Your task to perform on an android device: What is the recent news? Image 0: 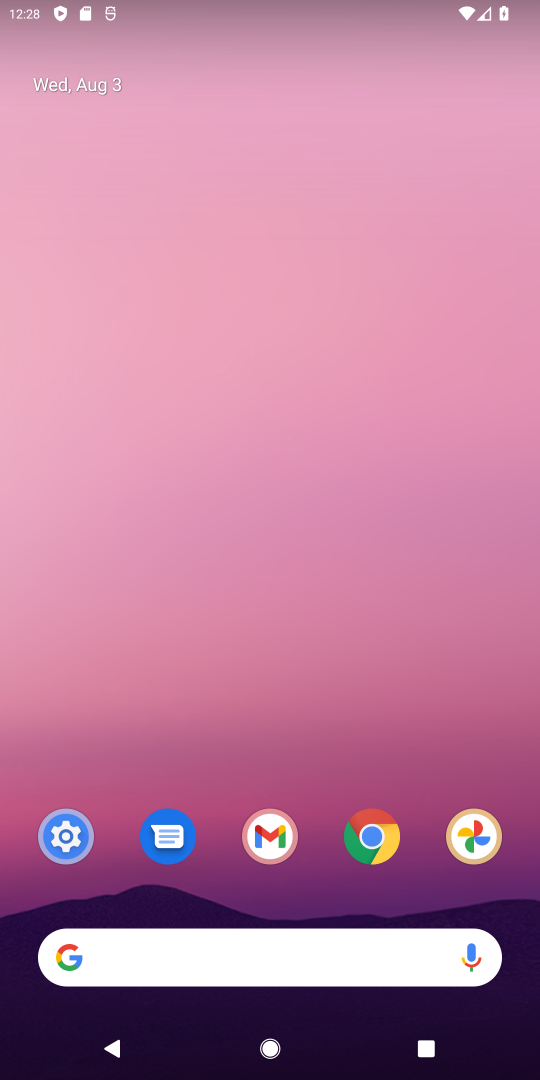
Step 0: drag from (214, 882) to (186, 274)
Your task to perform on an android device: What is the recent news? Image 1: 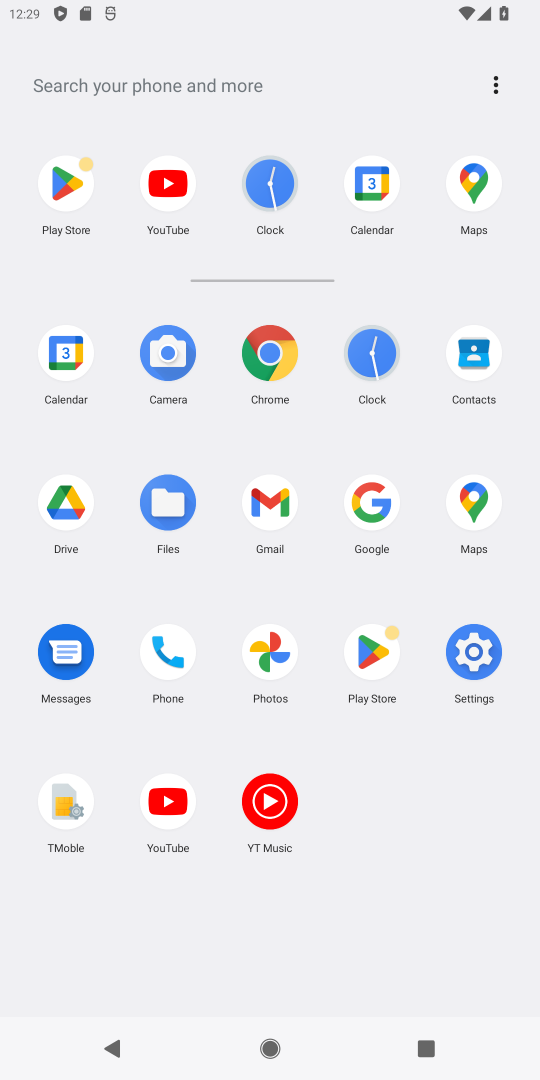
Step 1: drag from (426, 781) to (395, 310)
Your task to perform on an android device: What is the recent news? Image 2: 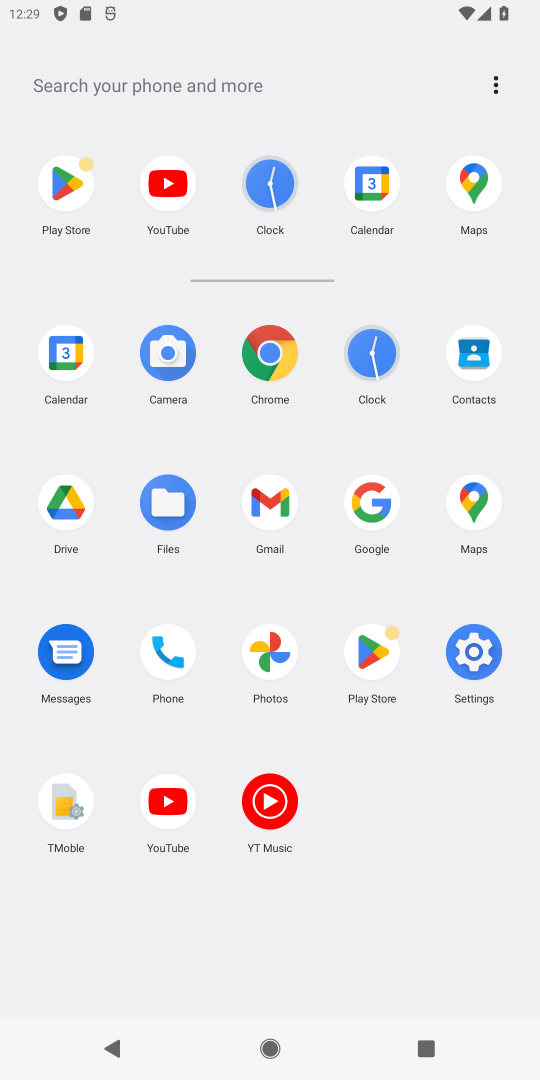
Step 2: click (171, 93)
Your task to perform on an android device: What is the recent news? Image 3: 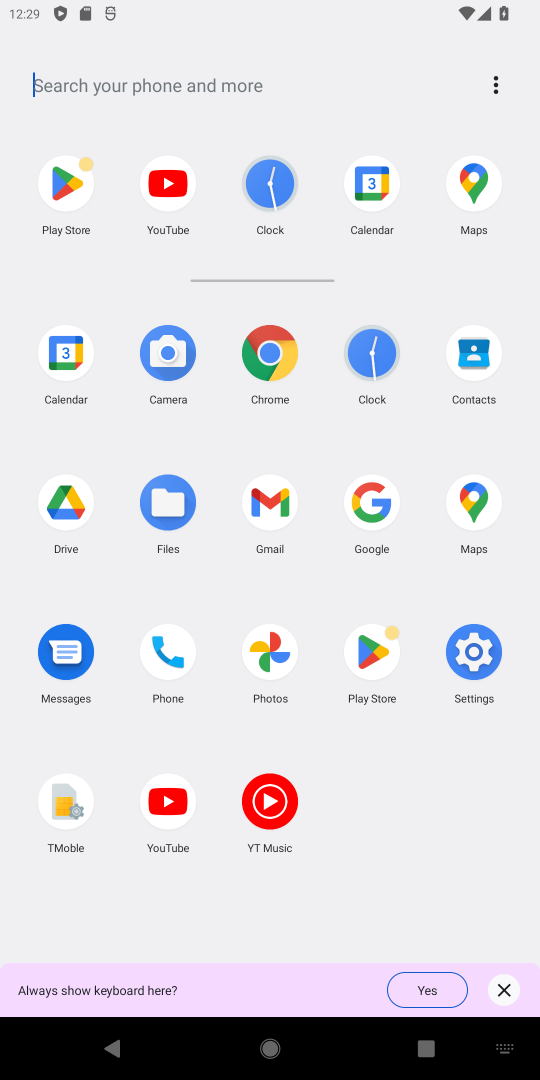
Step 3: type "recent news?"
Your task to perform on an android device: What is the recent news? Image 4: 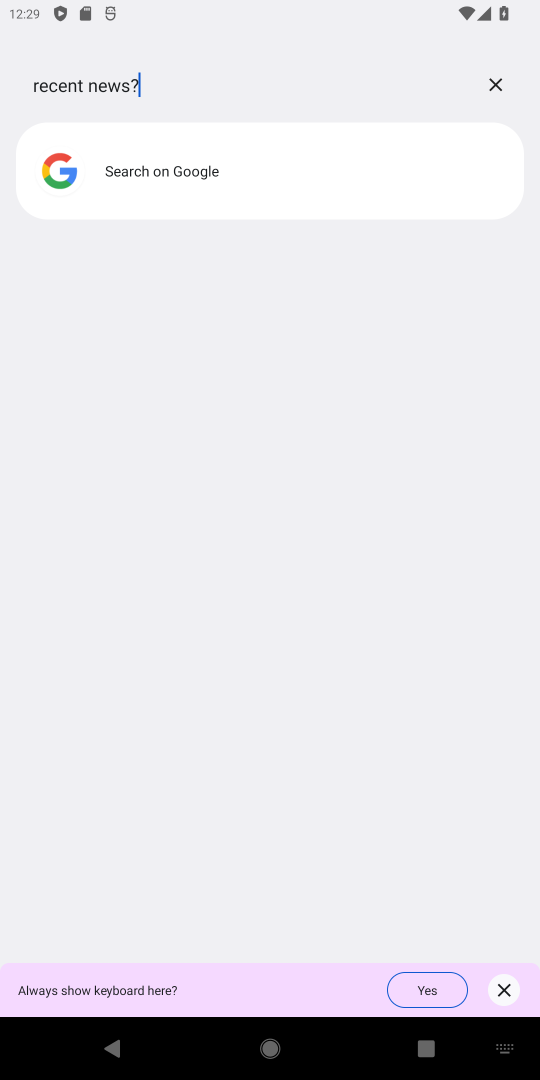
Step 4: click (184, 222)
Your task to perform on an android device: What is the recent news? Image 5: 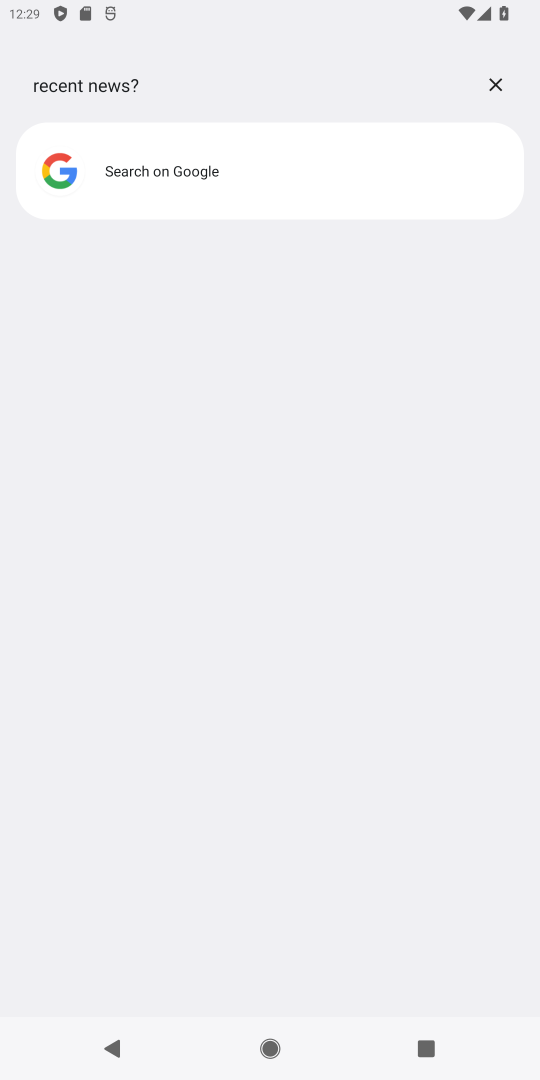
Step 5: click (156, 186)
Your task to perform on an android device: What is the recent news? Image 6: 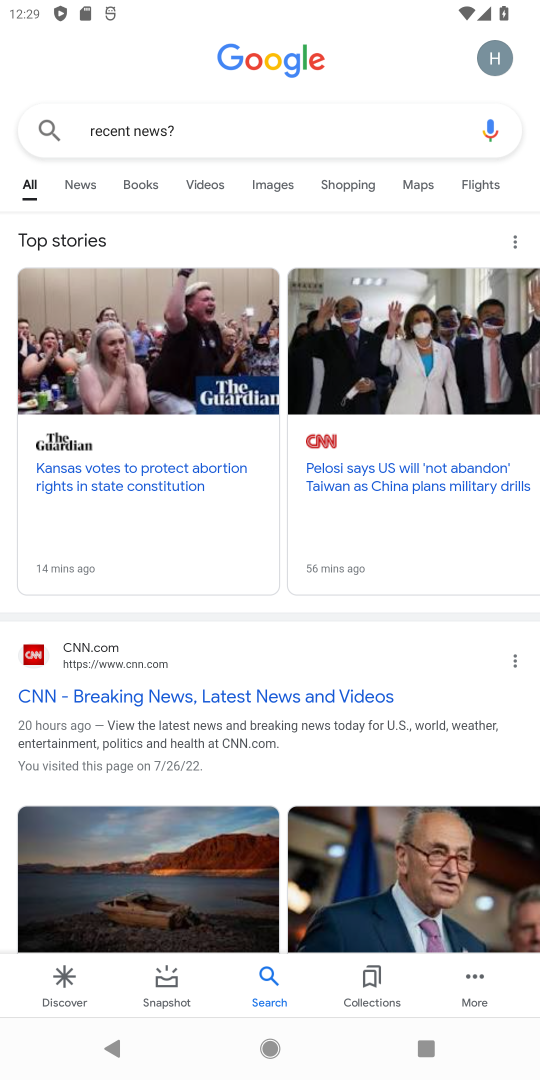
Step 6: drag from (268, 733) to (293, 418)
Your task to perform on an android device: What is the recent news? Image 7: 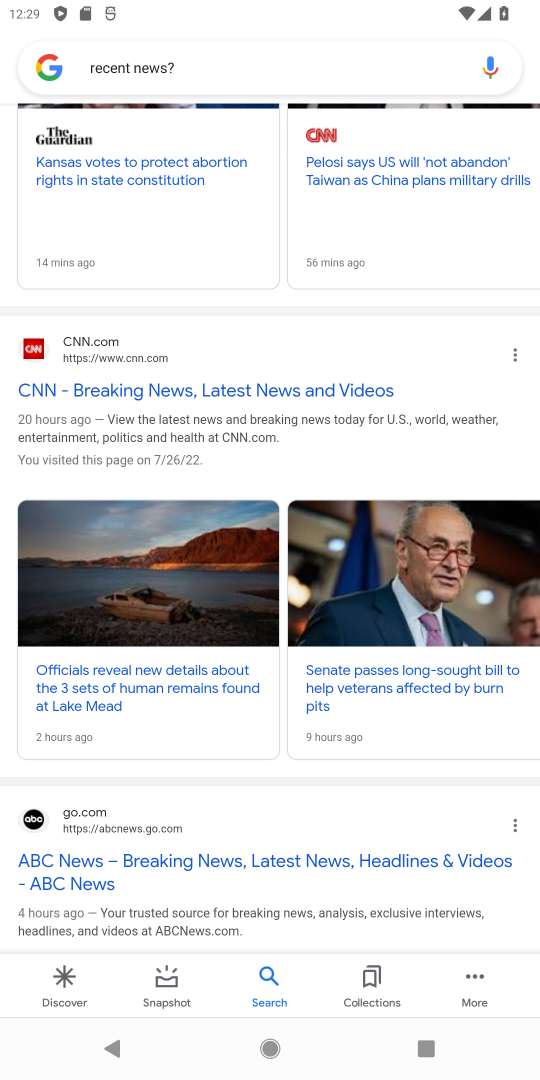
Step 7: drag from (220, 459) to (357, 345)
Your task to perform on an android device: What is the recent news? Image 8: 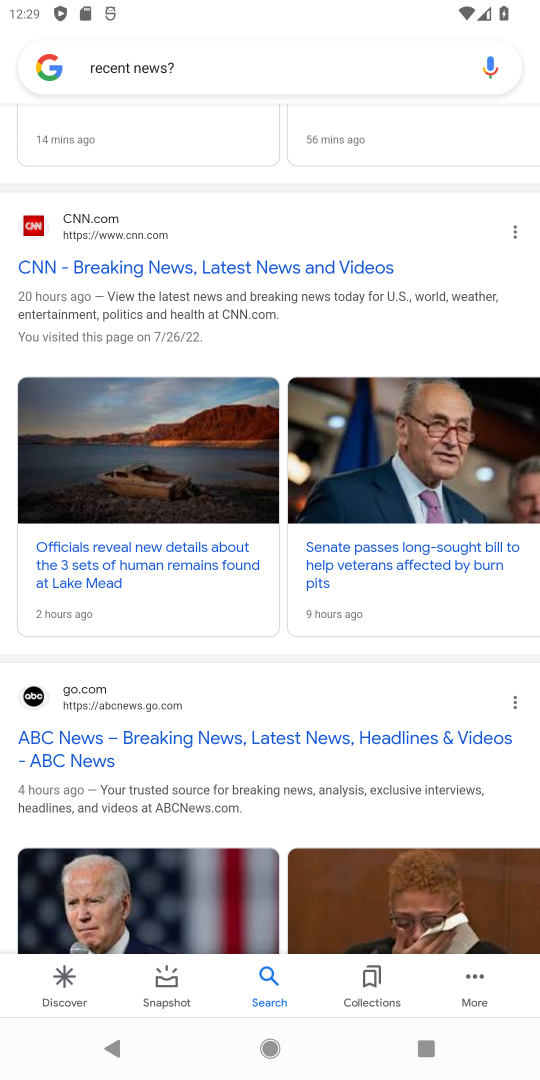
Step 8: drag from (225, 396) to (325, 1077)
Your task to perform on an android device: What is the recent news? Image 9: 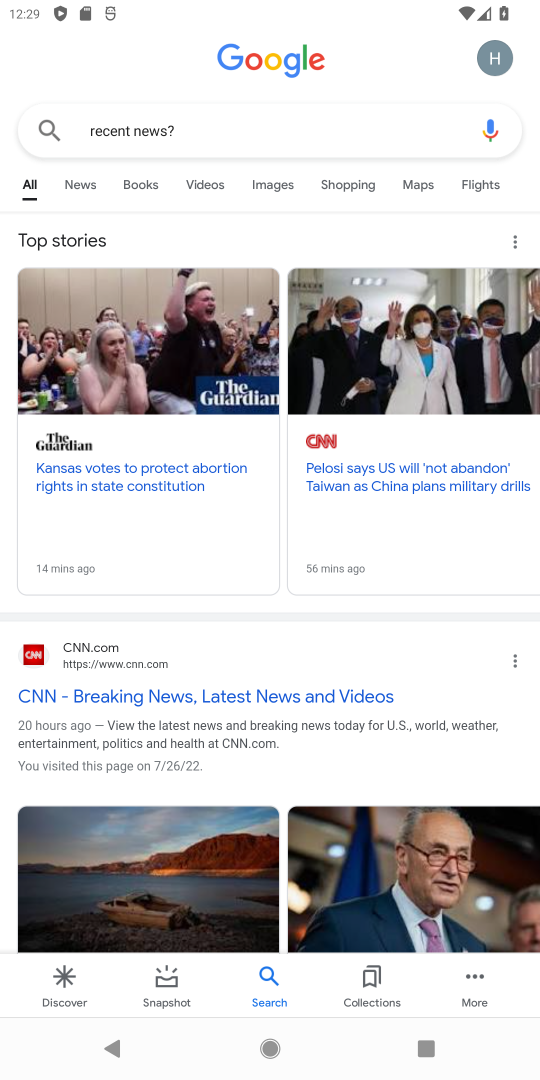
Step 9: click (106, 696)
Your task to perform on an android device: What is the recent news? Image 10: 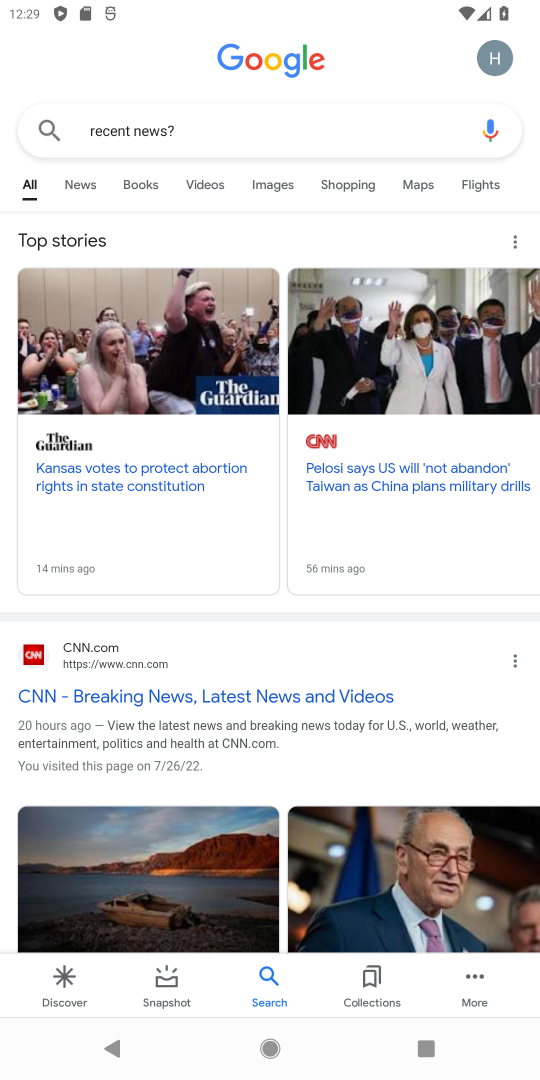
Step 10: task complete